Your task to perform on an android device: Go to ESPN.com Image 0: 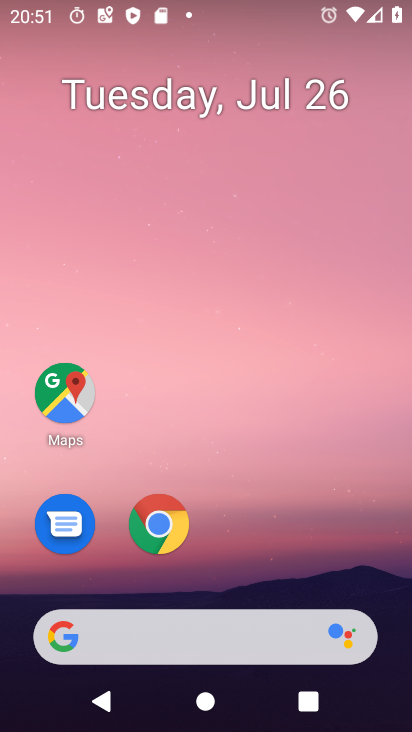
Step 0: click (195, 634)
Your task to perform on an android device: Go to ESPN.com Image 1: 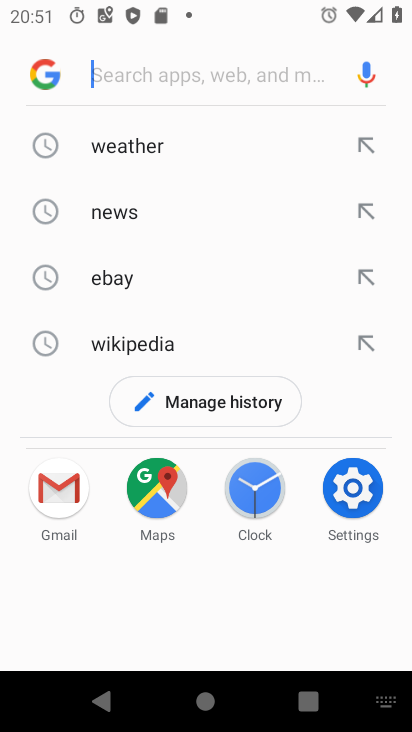
Step 1: type "espn.com"
Your task to perform on an android device: Go to ESPN.com Image 2: 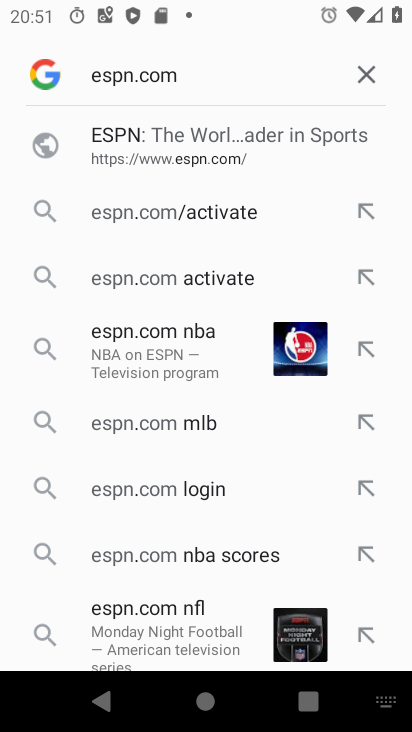
Step 2: click (261, 143)
Your task to perform on an android device: Go to ESPN.com Image 3: 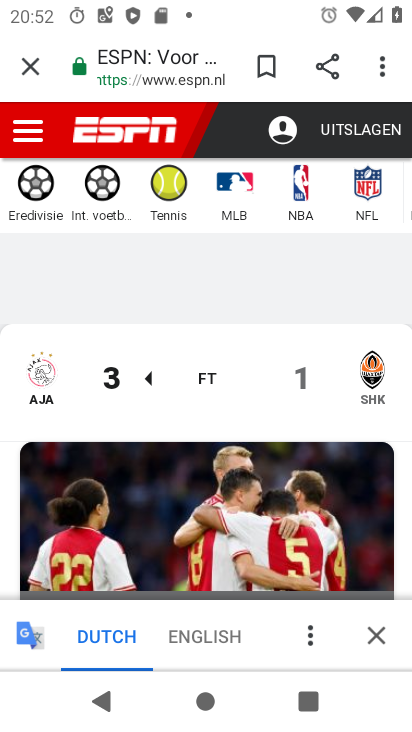
Step 3: task complete